Your task to perform on an android device: Open settings Image 0: 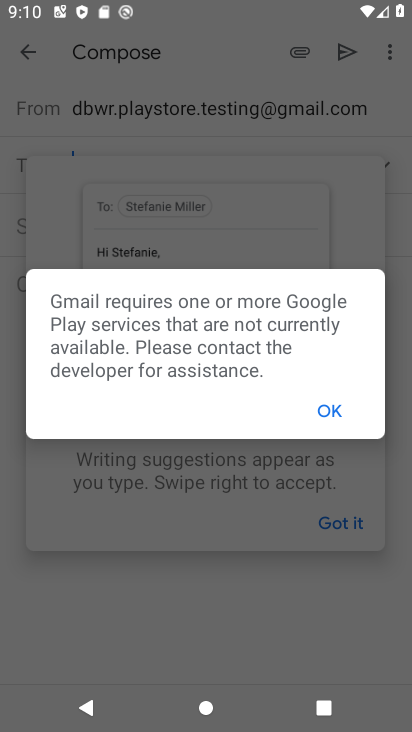
Step 0: press home button
Your task to perform on an android device: Open settings Image 1: 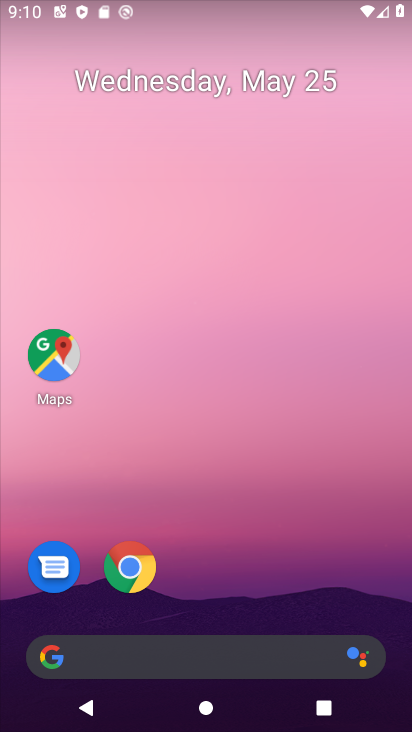
Step 1: drag from (325, 578) to (271, 165)
Your task to perform on an android device: Open settings Image 2: 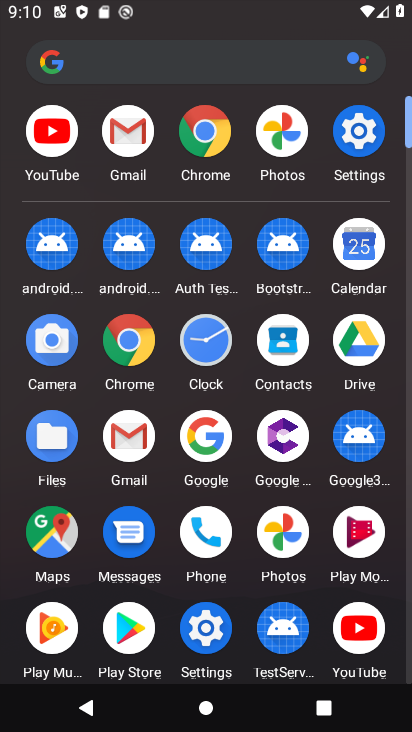
Step 2: click (344, 160)
Your task to perform on an android device: Open settings Image 3: 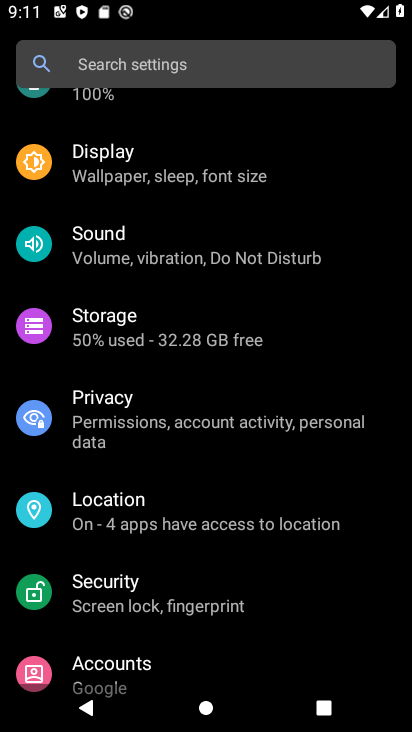
Step 3: press home button
Your task to perform on an android device: Open settings Image 4: 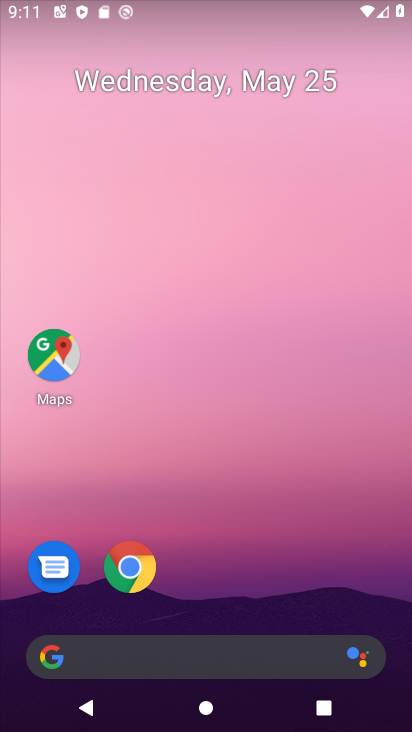
Step 4: drag from (267, 542) to (184, 159)
Your task to perform on an android device: Open settings Image 5: 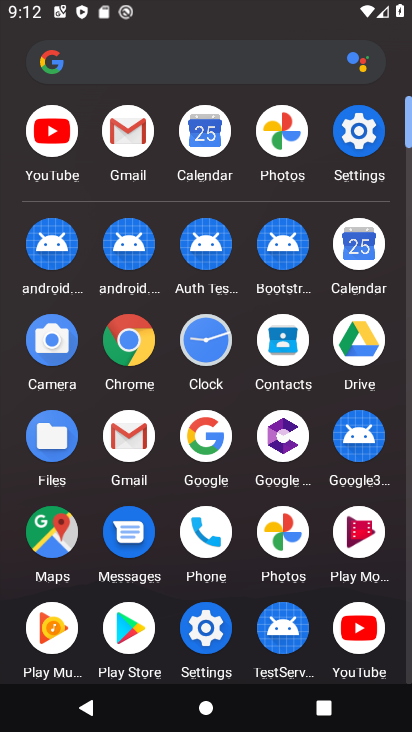
Step 5: click (350, 153)
Your task to perform on an android device: Open settings Image 6: 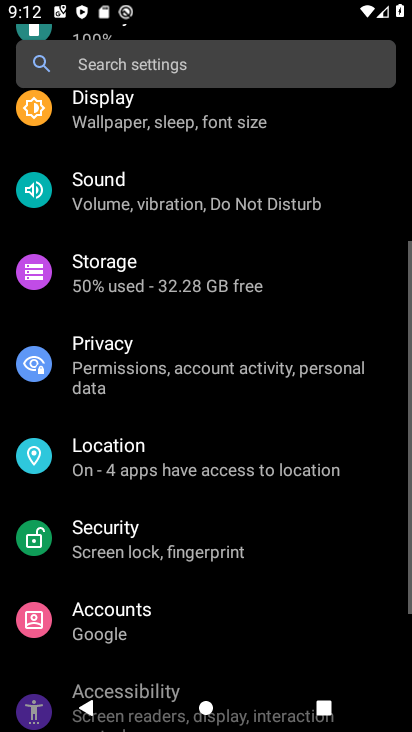
Step 6: task complete